Your task to perform on an android device: check storage Image 0: 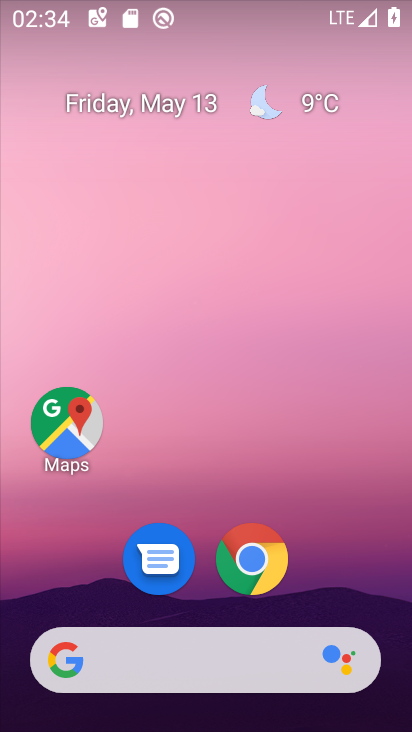
Step 0: drag from (384, 446) to (377, 151)
Your task to perform on an android device: check storage Image 1: 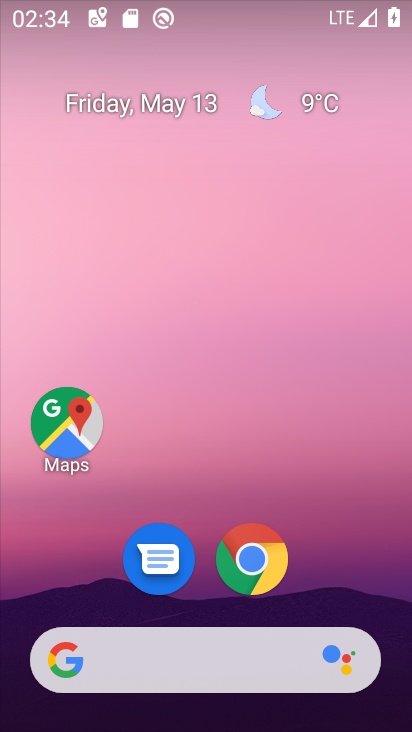
Step 1: drag from (388, 365) to (353, 116)
Your task to perform on an android device: check storage Image 2: 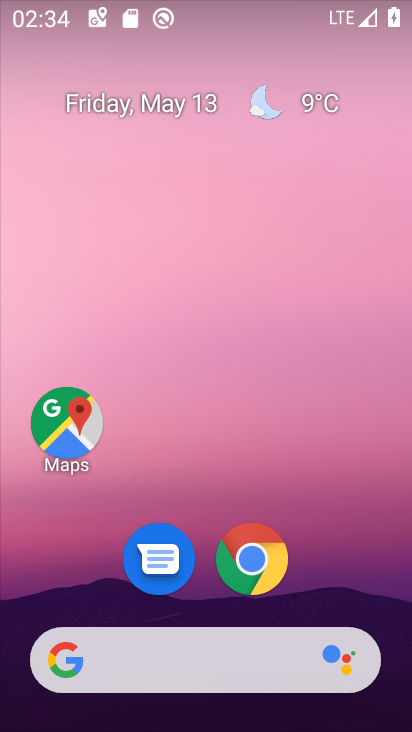
Step 2: click (366, 155)
Your task to perform on an android device: check storage Image 3: 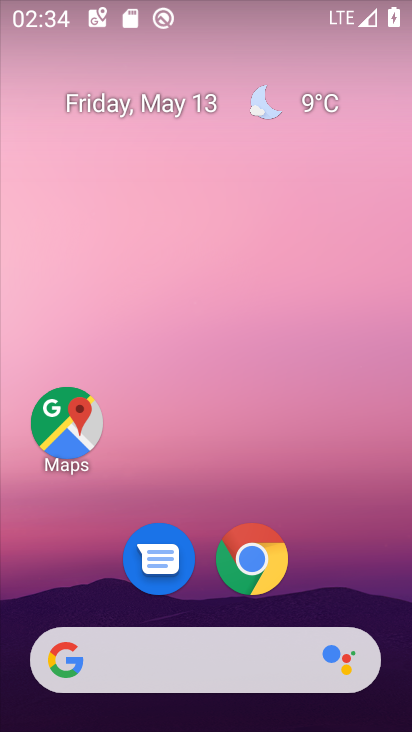
Step 3: drag from (392, 689) to (381, 259)
Your task to perform on an android device: check storage Image 4: 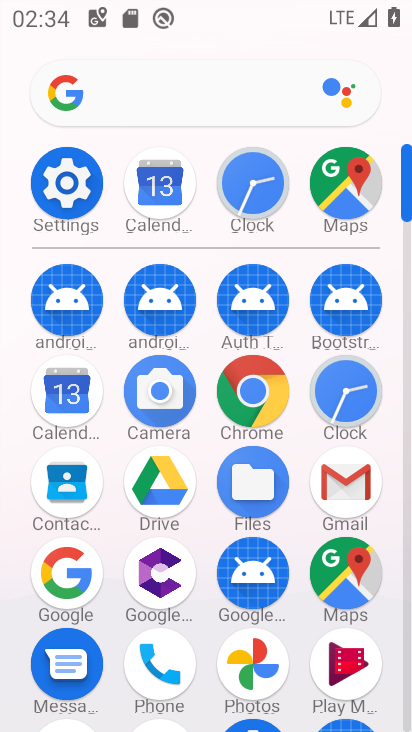
Step 4: click (76, 185)
Your task to perform on an android device: check storage Image 5: 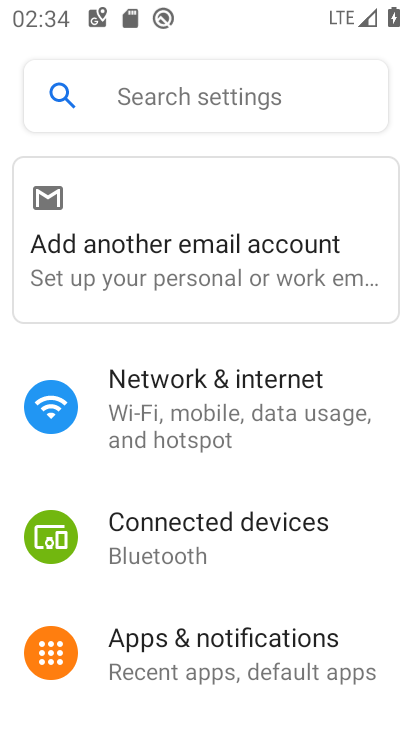
Step 5: drag from (302, 618) to (277, 226)
Your task to perform on an android device: check storage Image 6: 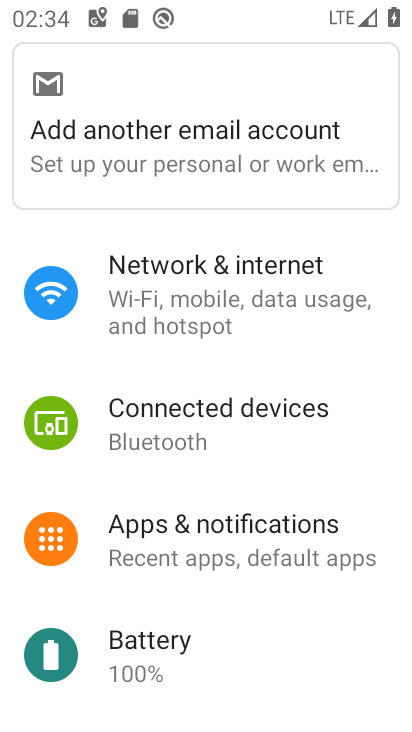
Step 6: drag from (296, 682) to (319, 259)
Your task to perform on an android device: check storage Image 7: 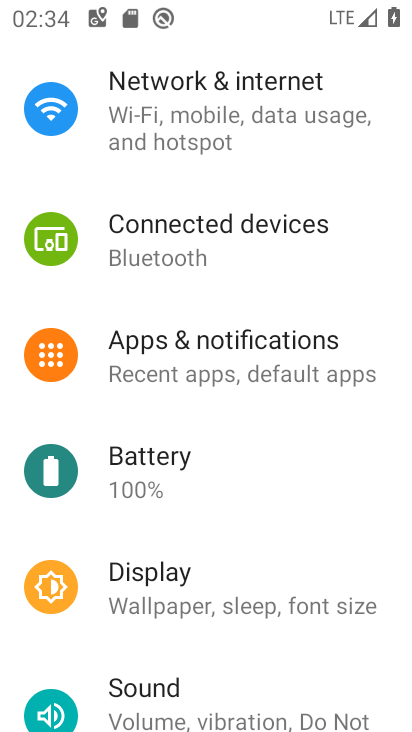
Step 7: drag from (262, 681) to (290, 363)
Your task to perform on an android device: check storage Image 8: 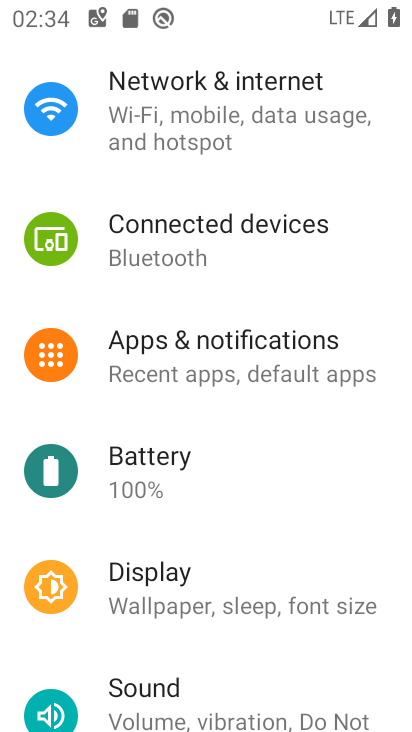
Step 8: drag from (332, 610) to (325, 425)
Your task to perform on an android device: check storage Image 9: 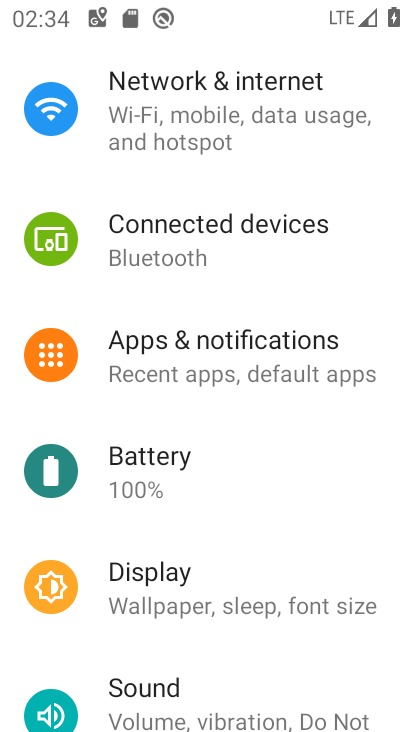
Step 9: drag from (257, 710) to (271, 483)
Your task to perform on an android device: check storage Image 10: 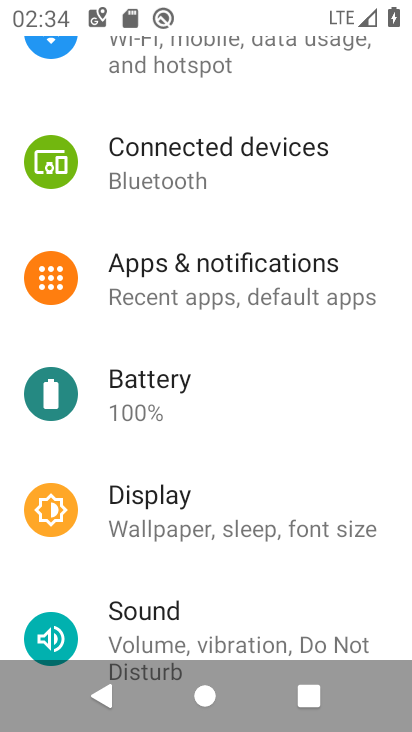
Step 10: drag from (280, 625) to (279, 347)
Your task to perform on an android device: check storage Image 11: 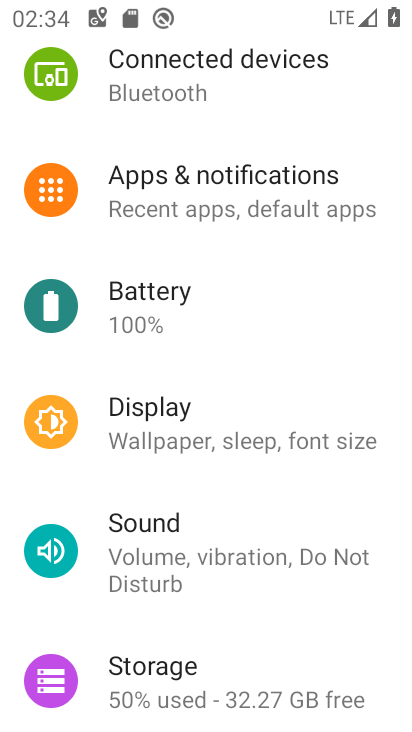
Step 11: click (147, 684)
Your task to perform on an android device: check storage Image 12: 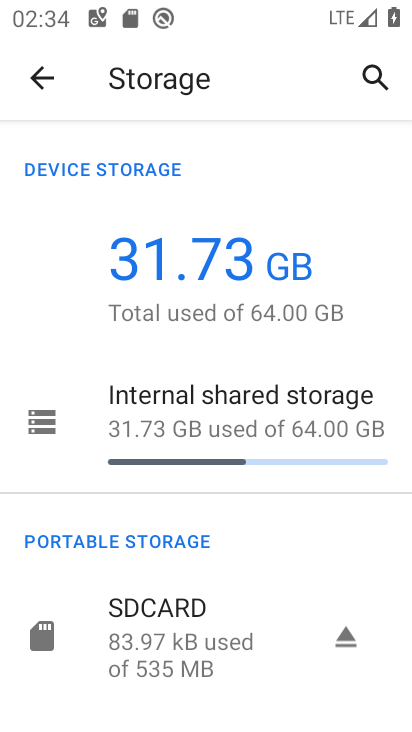
Step 12: task complete